Your task to perform on an android device: Add "energizer triple a" to the cart on target.com, then select checkout. Image 0: 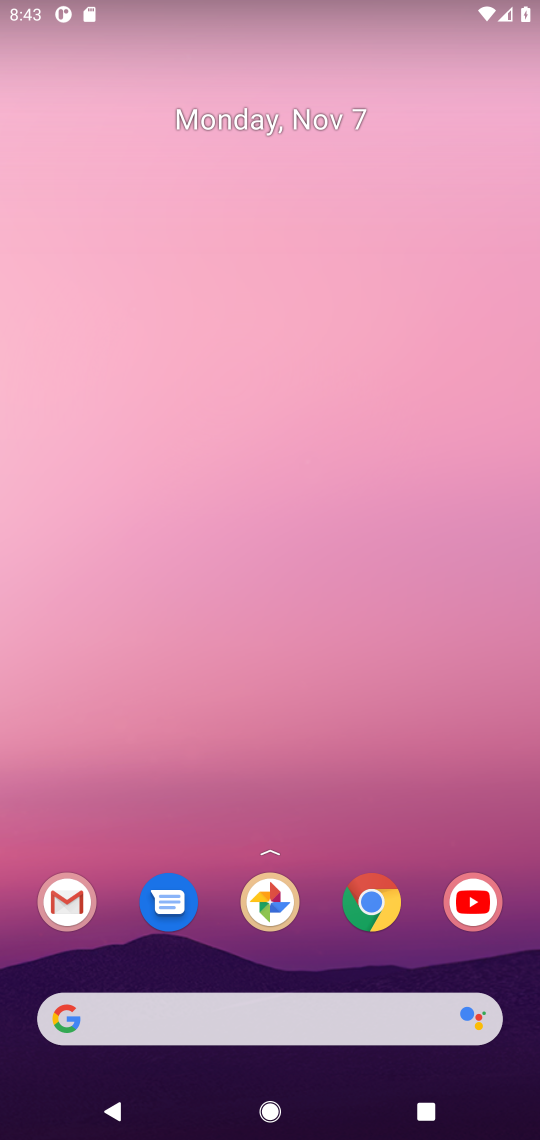
Step 0: click (373, 893)
Your task to perform on an android device: Add "energizer triple a" to the cart on target.com, then select checkout. Image 1: 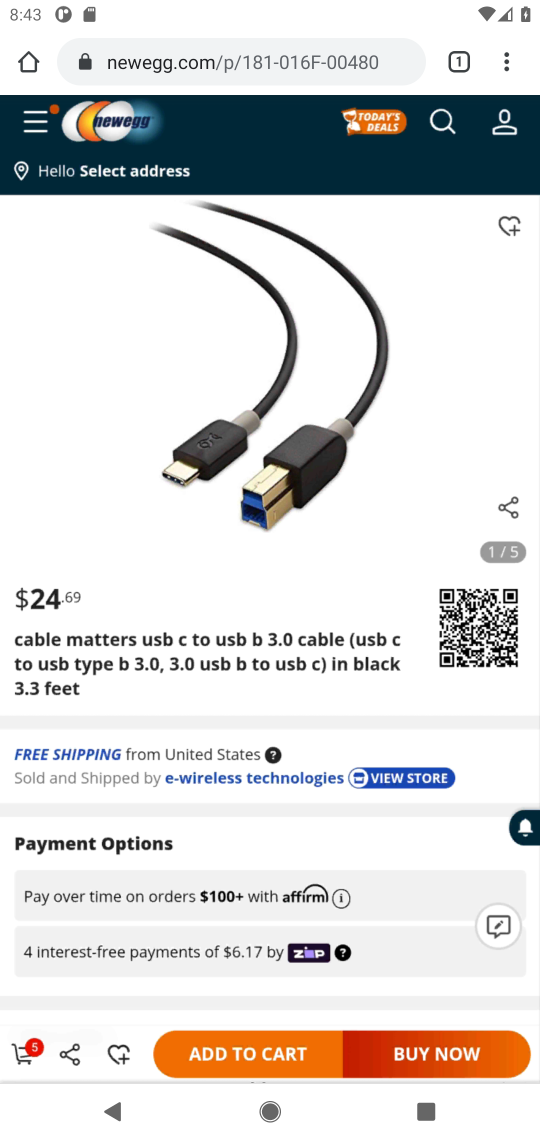
Step 1: click (167, 59)
Your task to perform on an android device: Add "energizer triple a" to the cart on target.com, then select checkout. Image 2: 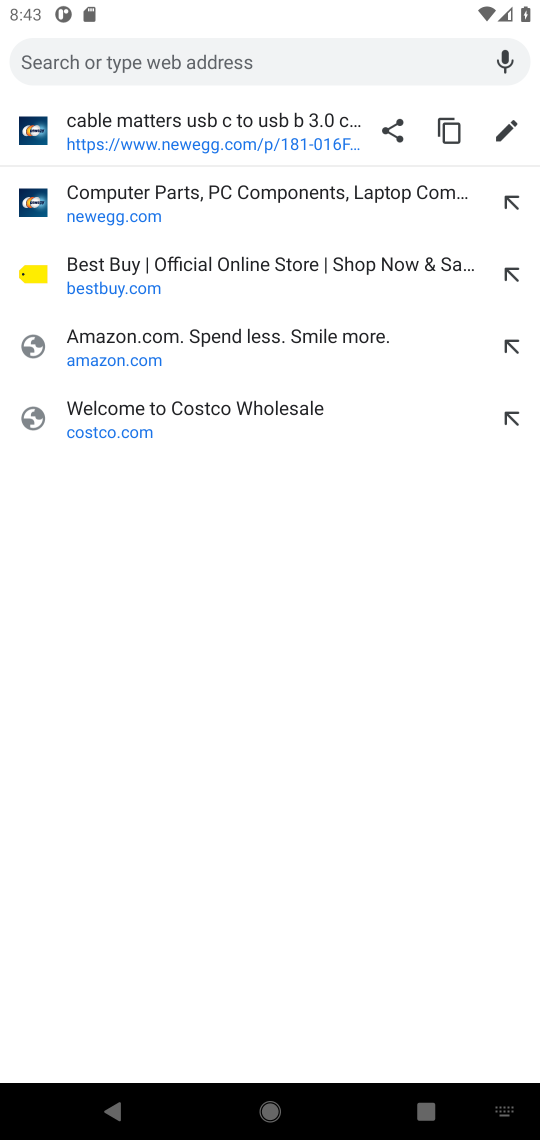
Step 2: type "target.com"
Your task to perform on an android device: Add "energizer triple a" to the cart on target.com, then select checkout. Image 3: 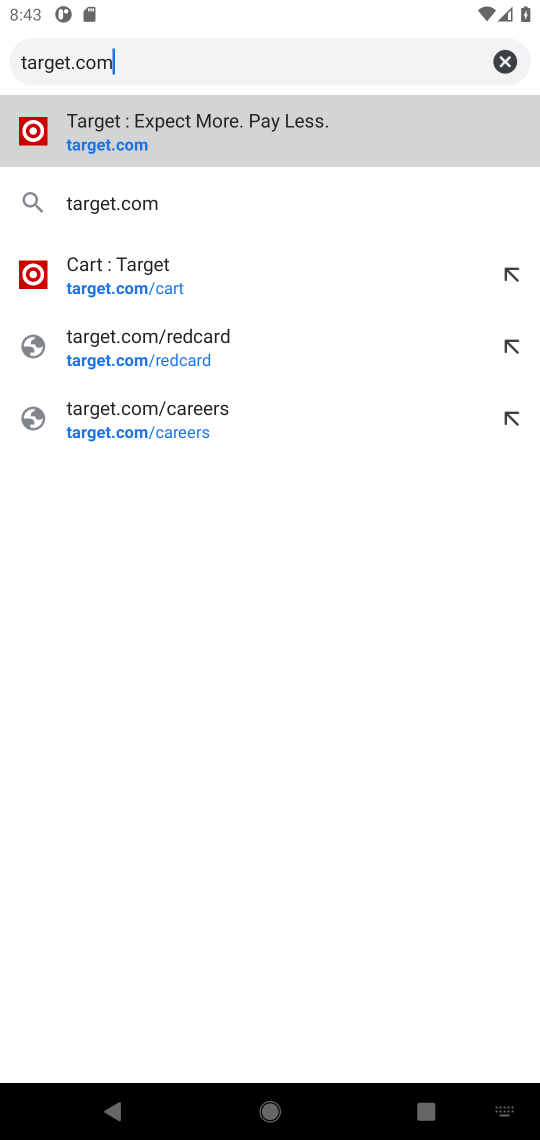
Step 3: click (113, 143)
Your task to perform on an android device: Add "energizer triple a" to the cart on target.com, then select checkout. Image 4: 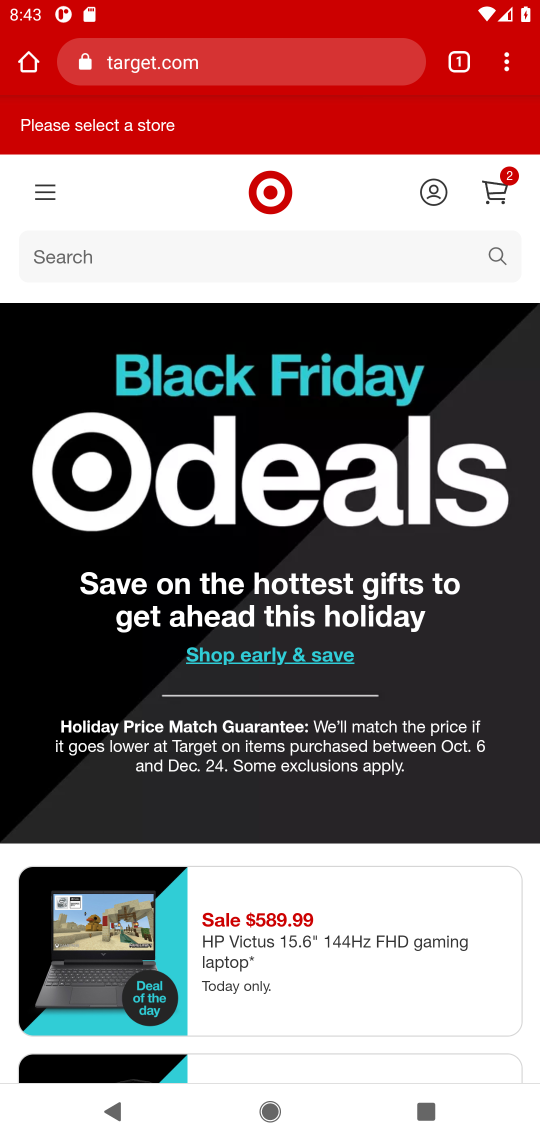
Step 4: click (492, 259)
Your task to perform on an android device: Add "energizer triple a" to the cart on target.com, then select checkout. Image 5: 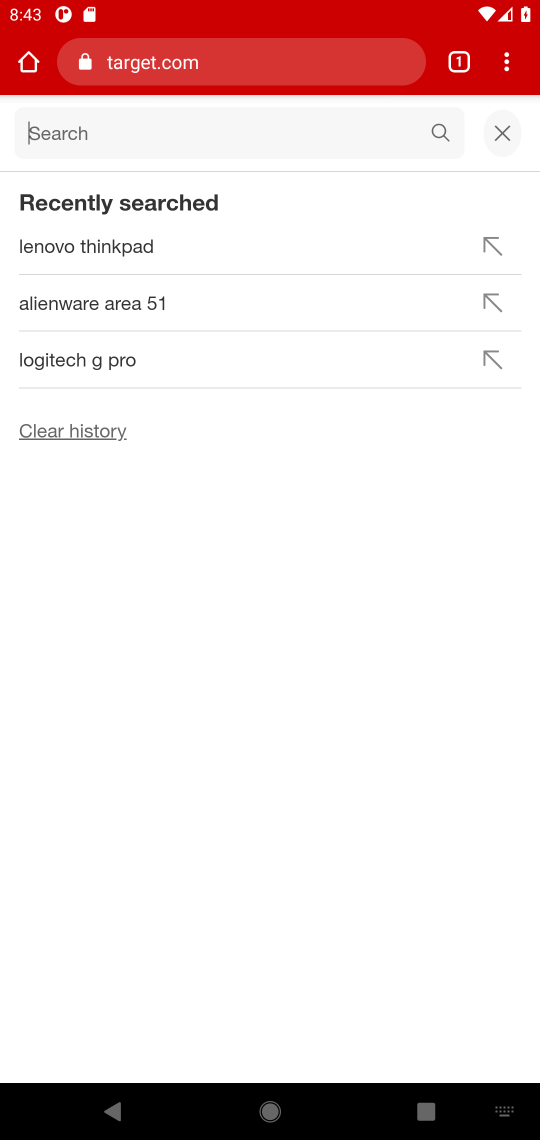
Step 5: type "energizer triple a"
Your task to perform on an android device: Add "energizer triple a" to the cart on target.com, then select checkout. Image 6: 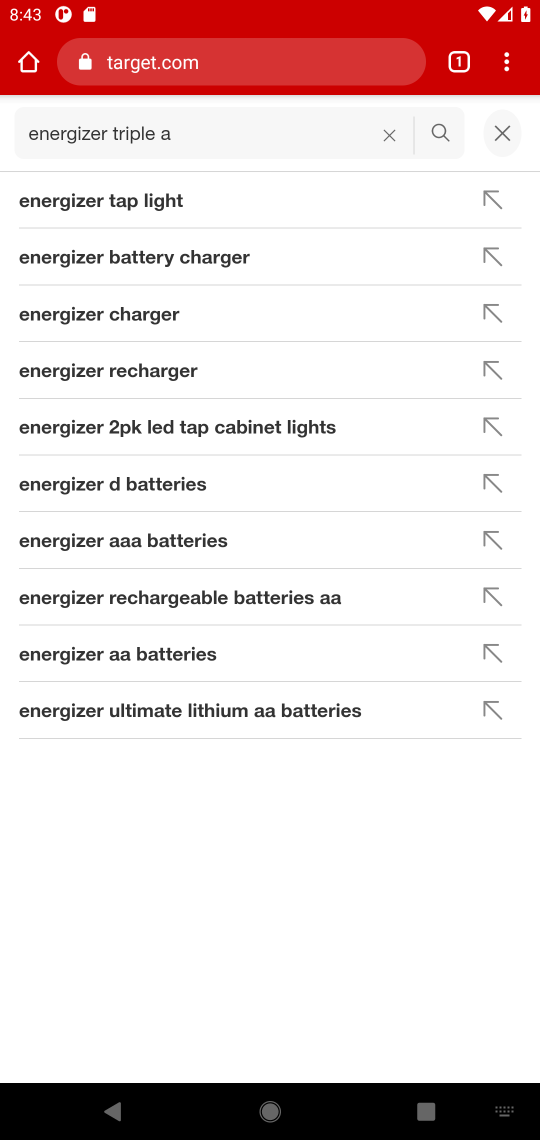
Step 6: click (431, 134)
Your task to perform on an android device: Add "energizer triple a" to the cart on target.com, then select checkout. Image 7: 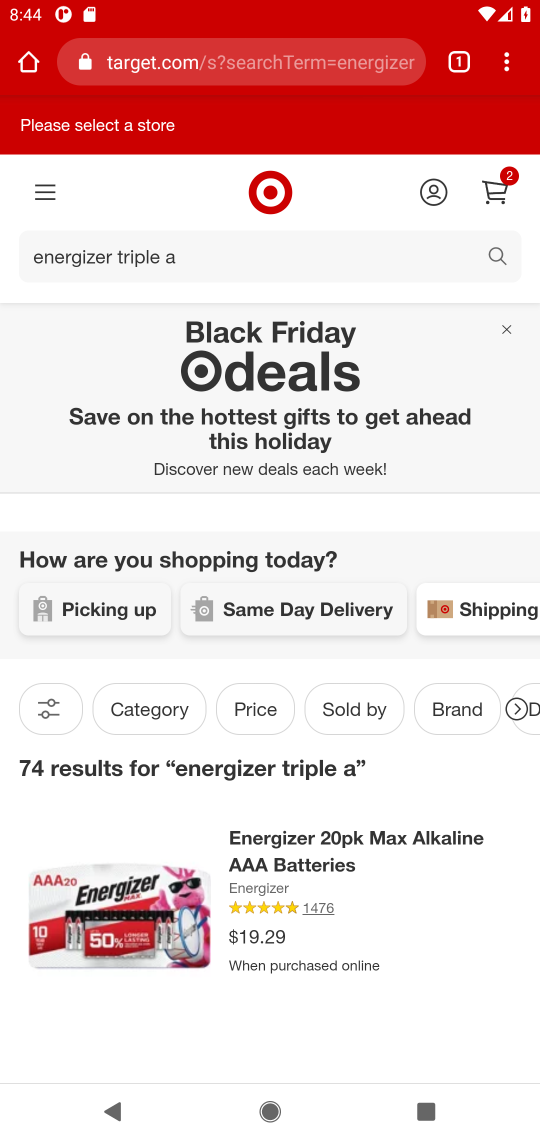
Step 7: click (159, 900)
Your task to perform on an android device: Add "energizer triple a" to the cart on target.com, then select checkout. Image 8: 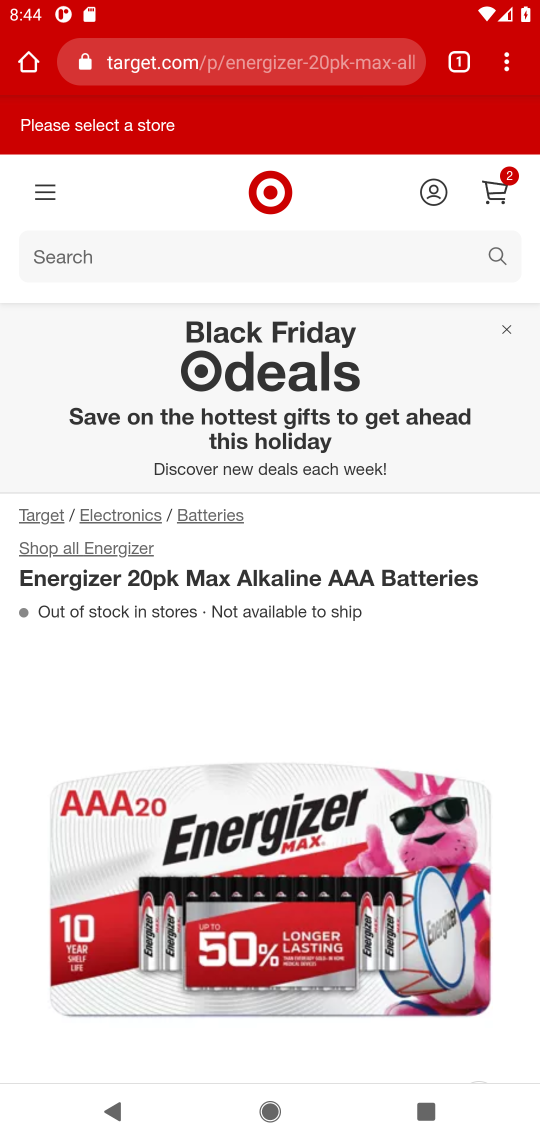
Step 8: drag from (248, 894) to (189, 274)
Your task to perform on an android device: Add "energizer triple a" to the cart on target.com, then select checkout. Image 9: 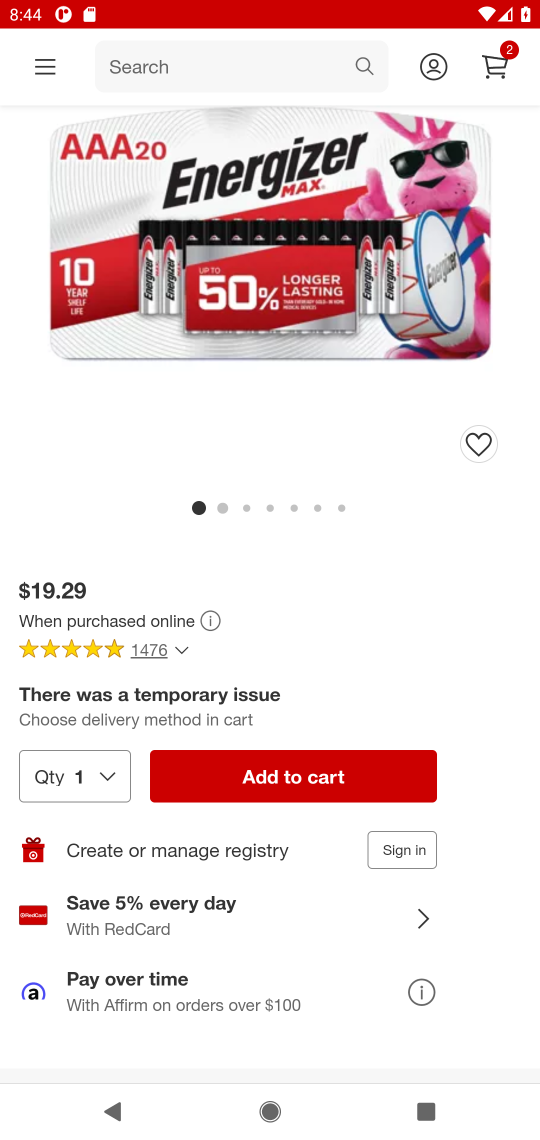
Step 9: click (247, 781)
Your task to perform on an android device: Add "energizer triple a" to the cart on target.com, then select checkout. Image 10: 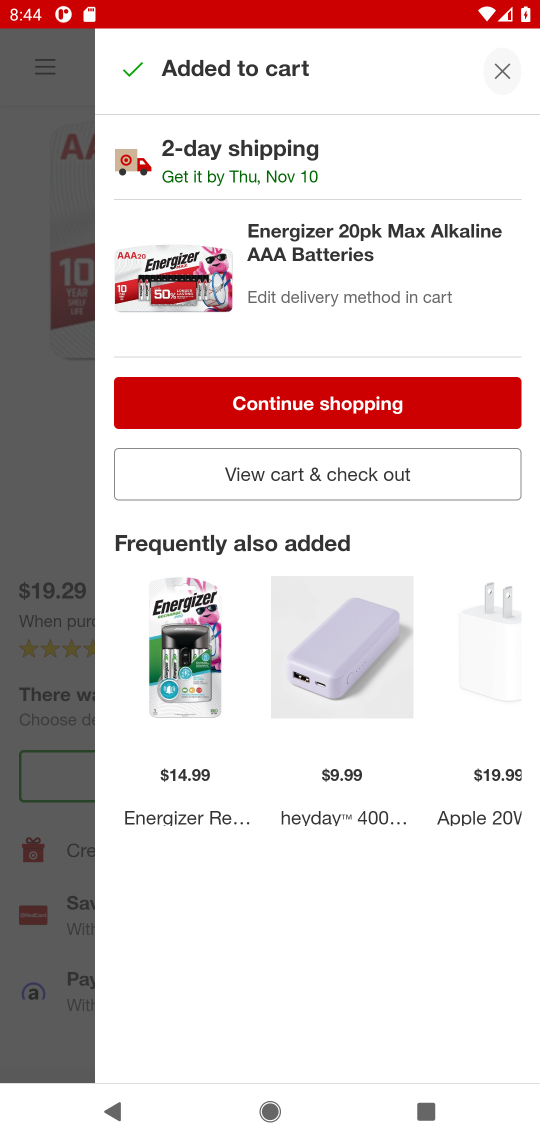
Step 10: click (274, 475)
Your task to perform on an android device: Add "energizer triple a" to the cart on target.com, then select checkout. Image 11: 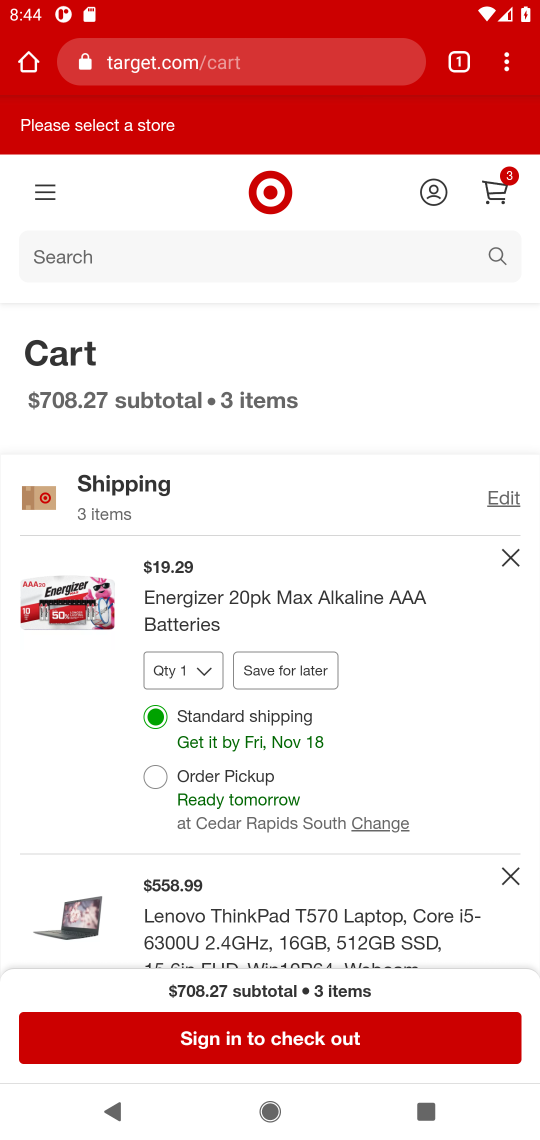
Step 11: click (257, 1038)
Your task to perform on an android device: Add "energizer triple a" to the cart on target.com, then select checkout. Image 12: 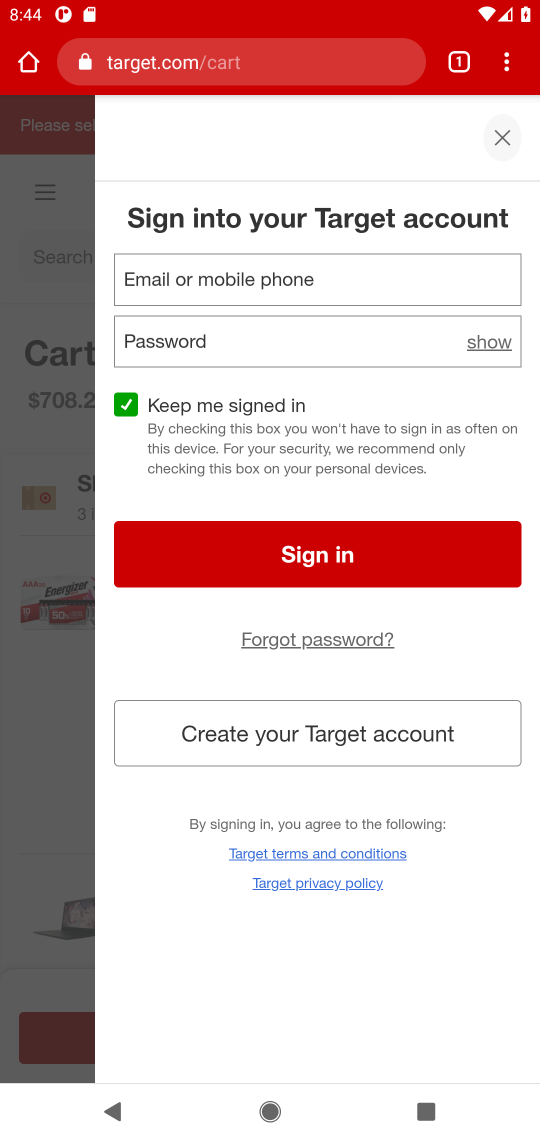
Step 12: task complete